Your task to perform on an android device: open chrome privacy settings Image 0: 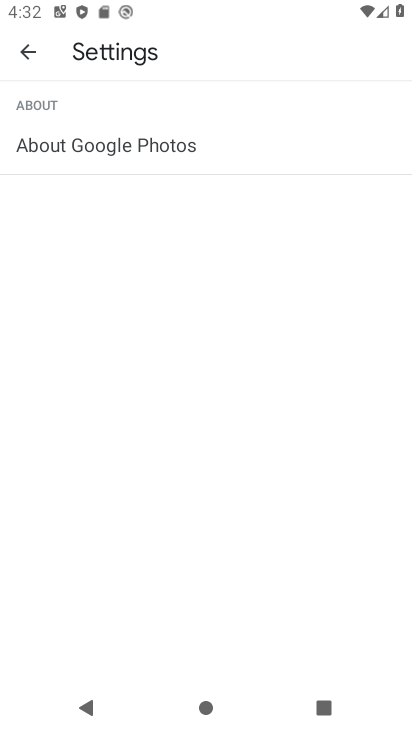
Step 0: press home button
Your task to perform on an android device: open chrome privacy settings Image 1: 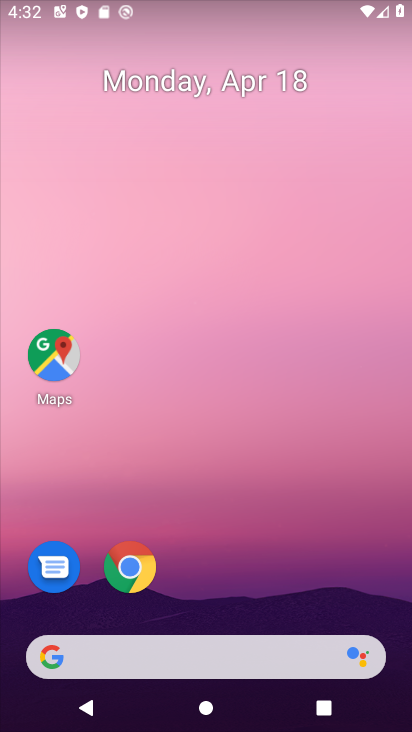
Step 1: drag from (181, 617) to (144, 163)
Your task to perform on an android device: open chrome privacy settings Image 2: 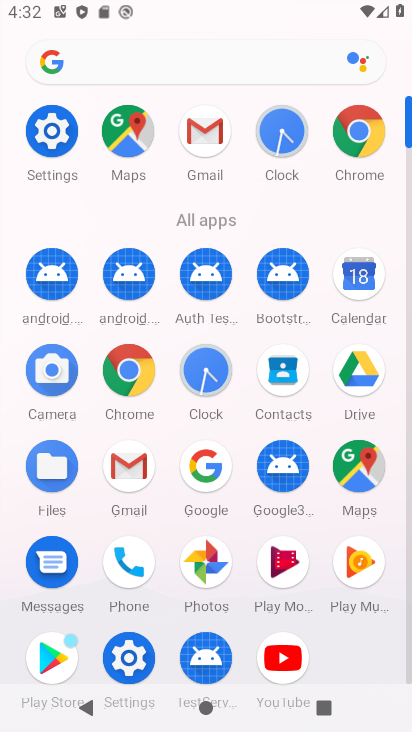
Step 2: click (363, 140)
Your task to perform on an android device: open chrome privacy settings Image 3: 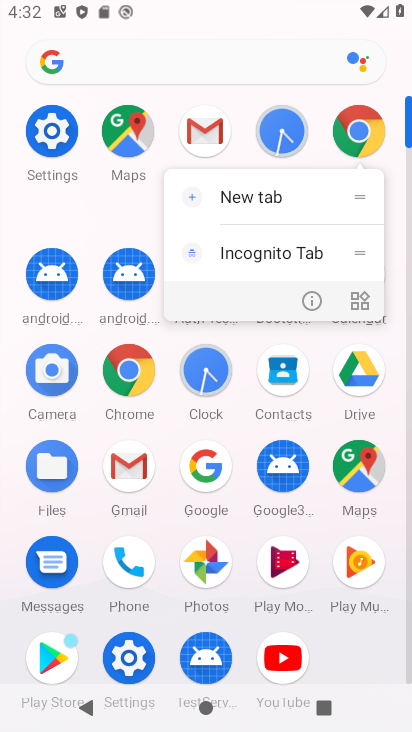
Step 3: click (363, 140)
Your task to perform on an android device: open chrome privacy settings Image 4: 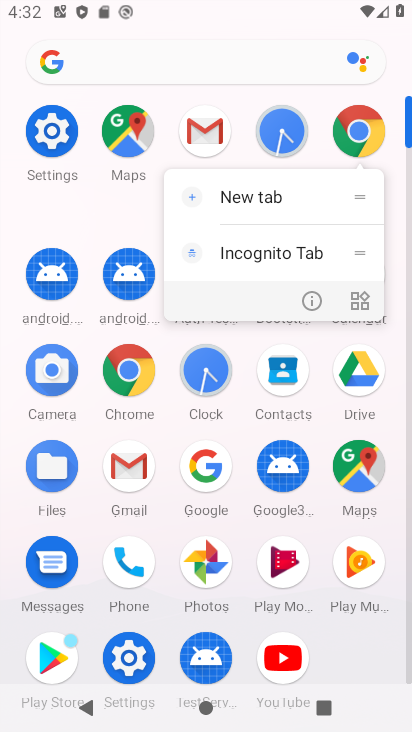
Step 4: click (363, 140)
Your task to perform on an android device: open chrome privacy settings Image 5: 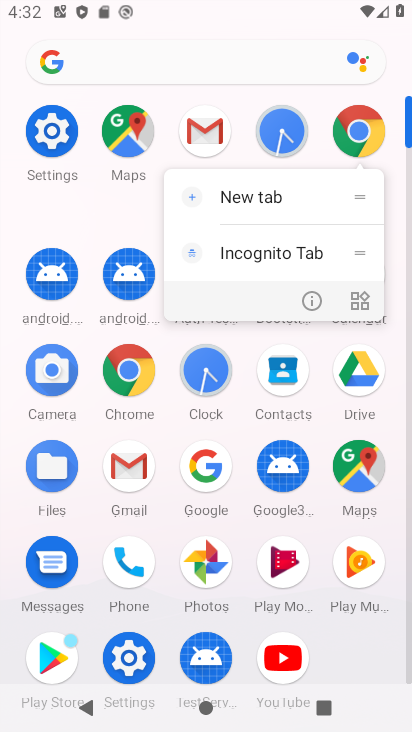
Step 5: click (363, 140)
Your task to perform on an android device: open chrome privacy settings Image 6: 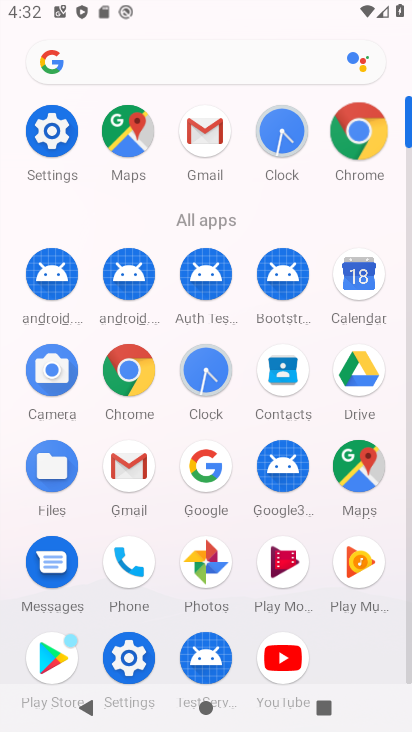
Step 6: click (363, 140)
Your task to perform on an android device: open chrome privacy settings Image 7: 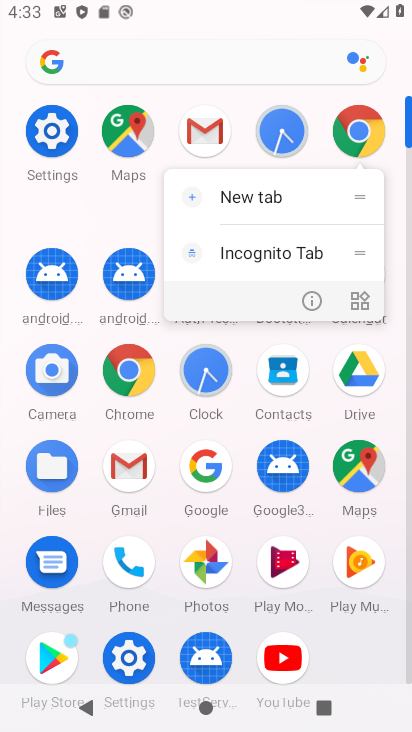
Step 7: click (363, 140)
Your task to perform on an android device: open chrome privacy settings Image 8: 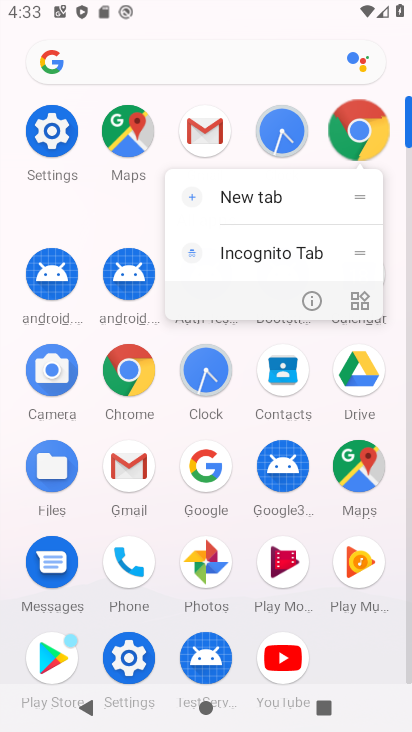
Step 8: click (363, 140)
Your task to perform on an android device: open chrome privacy settings Image 9: 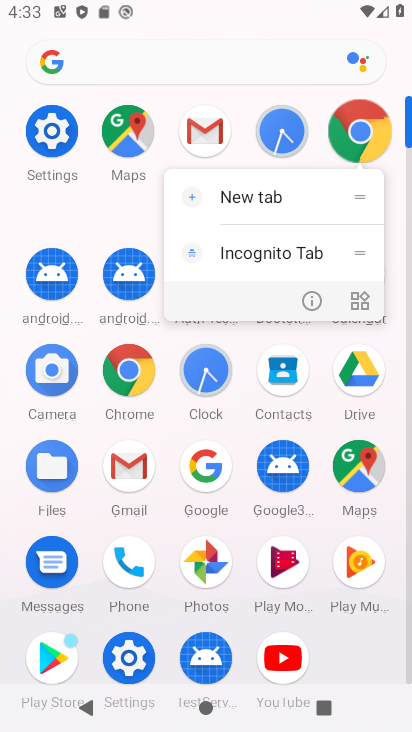
Step 9: click (363, 140)
Your task to perform on an android device: open chrome privacy settings Image 10: 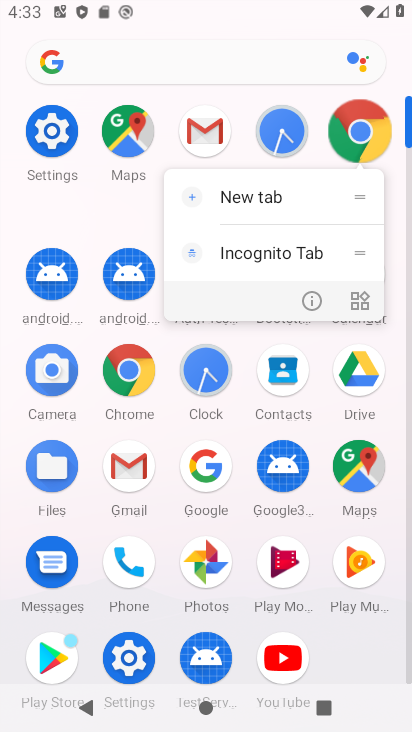
Step 10: click (363, 140)
Your task to perform on an android device: open chrome privacy settings Image 11: 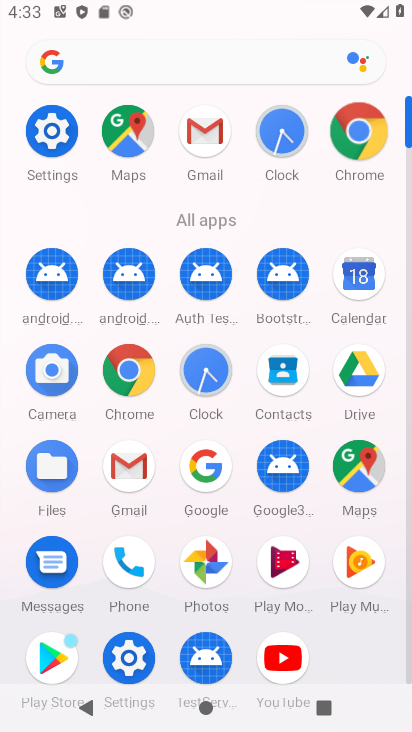
Step 11: click (363, 140)
Your task to perform on an android device: open chrome privacy settings Image 12: 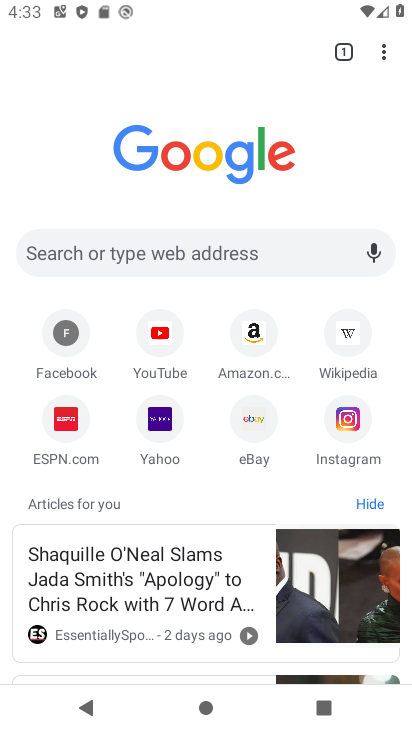
Step 12: click (383, 47)
Your task to perform on an android device: open chrome privacy settings Image 13: 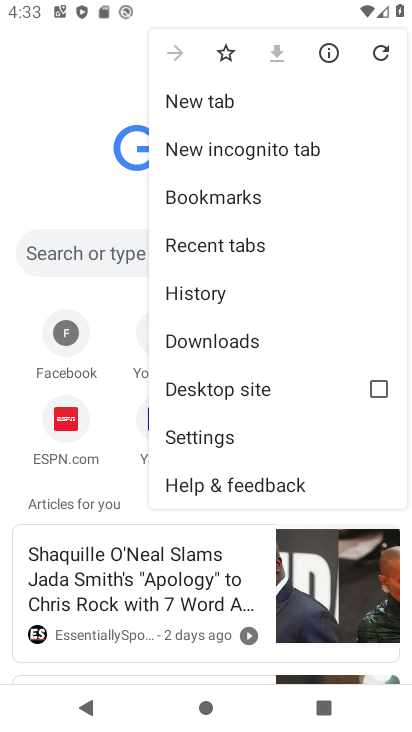
Step 13: drag from (245, 365) to (218, 104)
Your task to perform on an android device: open chrome privacy settings Image 14: 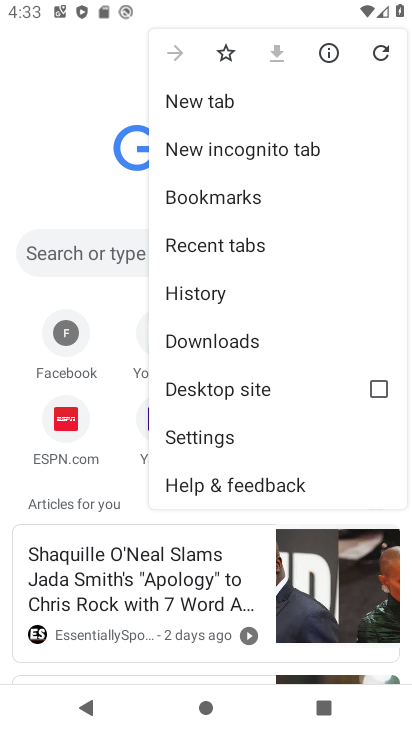
Step 14: click (200, 432)
Your task to perform on an android device: open chrome privacy settings Image 15: 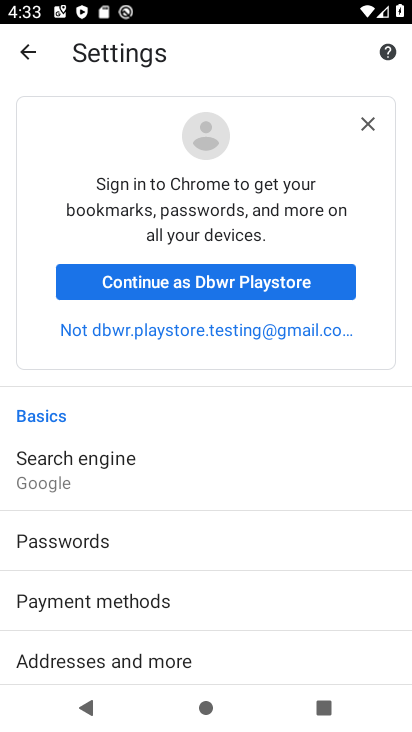
Step 15: drag from (200, 432) to (183, 204)
Your task to perform on an android device: open chrome privacy settings Image 16: 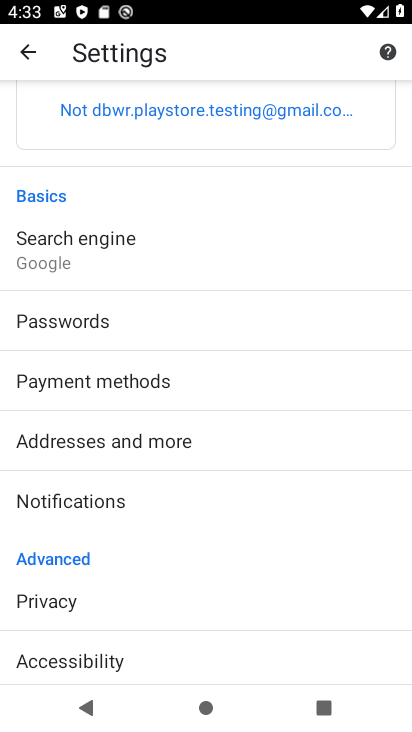
Step 16: click (46, 593)
Your task to perform on an android device: open chrome privacy settings Image 17: 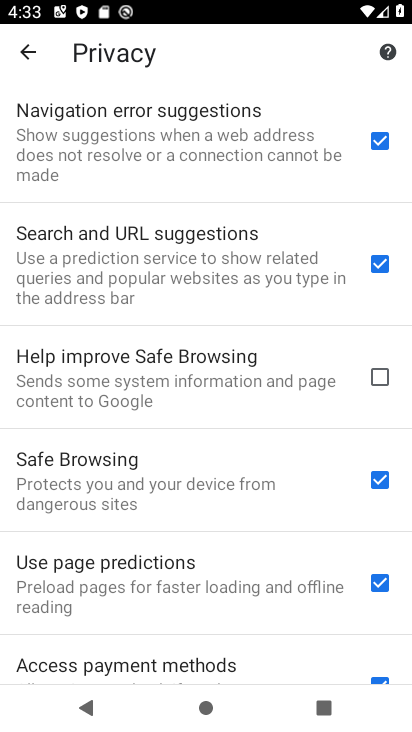
Step 17: task complete